Your task to perform on an android device: Go to battery settings Image 0: 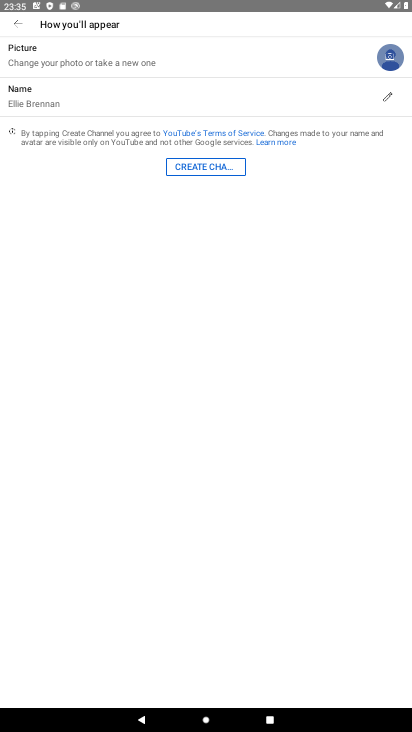
Step 0: press home button
Your task to perform on an android device: Go to battery settings Image 1: 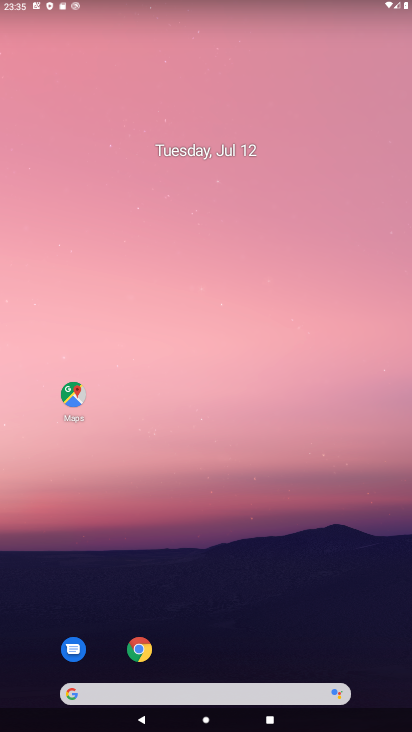
Step 1: drag from (384, 666) to (310, 126)
Your task to perform on an android device: Go to battery settings Image 2: 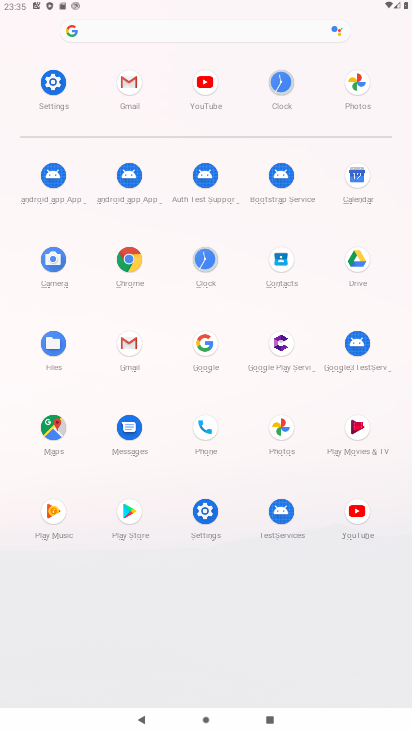
Step 2: click (205, 507)
Your task to perform on an android device: Go to battery settings Image 3: 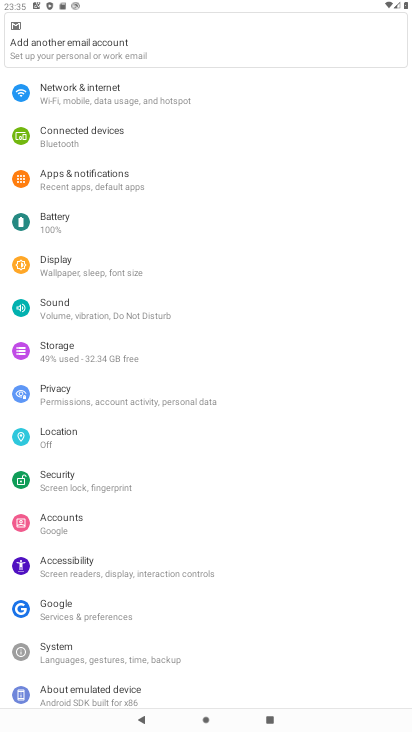
Step 3: click (42, 207)
Your task to perform on an android device: Go to battery settings Image 4: 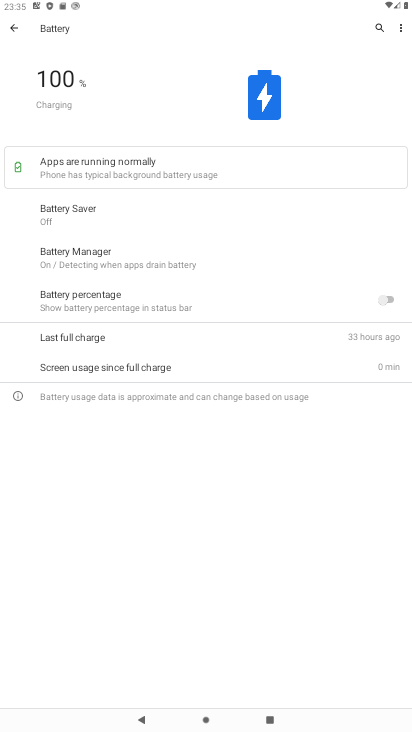
Step 4: task complete